Your task to perform on an android device: visit the assistant section in the google photos Image 0: 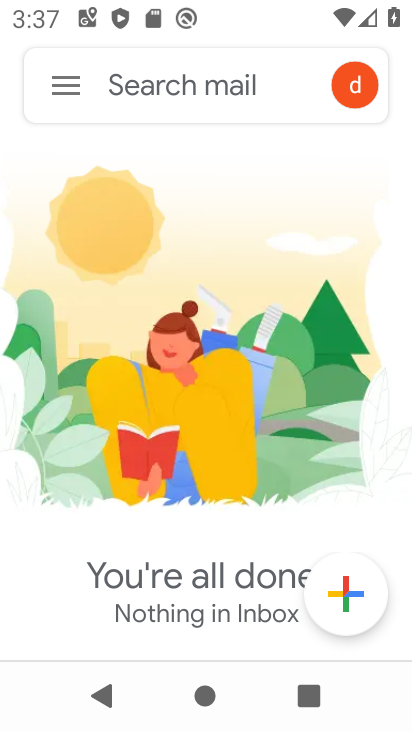
Step 0: press home button
Your task to perform on an android device: visit the assistant section in the google photos Image 1: 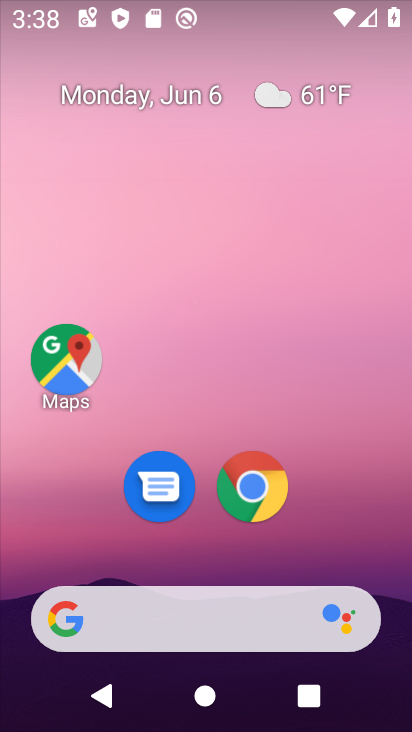
Step 1: drag from (330, 441) to (341, 89)
Your task to perform on an android device: visit the assistant section in the google photos Image 2: 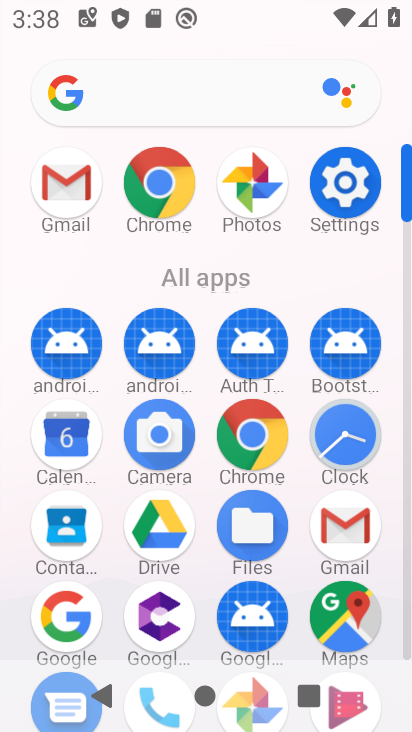
Step 2: click (266, 195)
Your task to perform on an android device: visit the assistant section in the google photos Image 3: 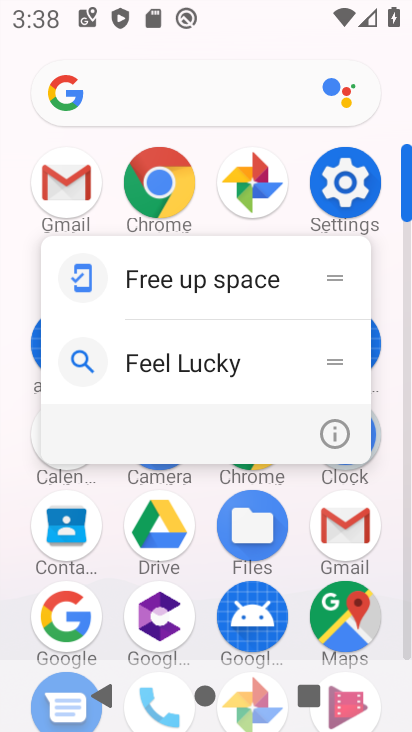
Step 3: click (266, 189)
Your task to perform on an android device: visit the assistant section in the google photos Image 4: 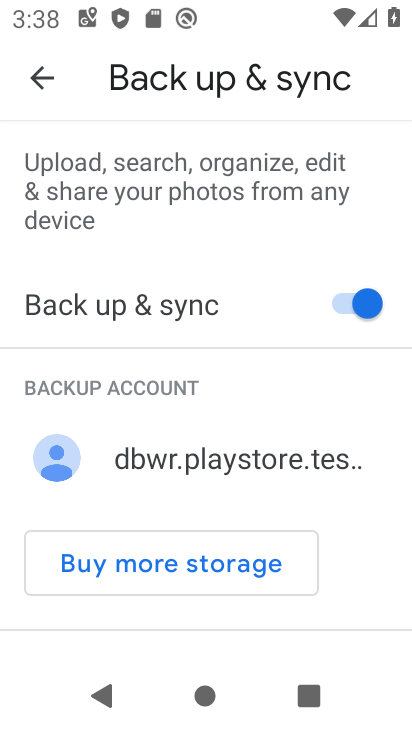
Step 4: click (40, 66)
Your task to perform on an android device: visit the assistant section in the google photos Image 5: 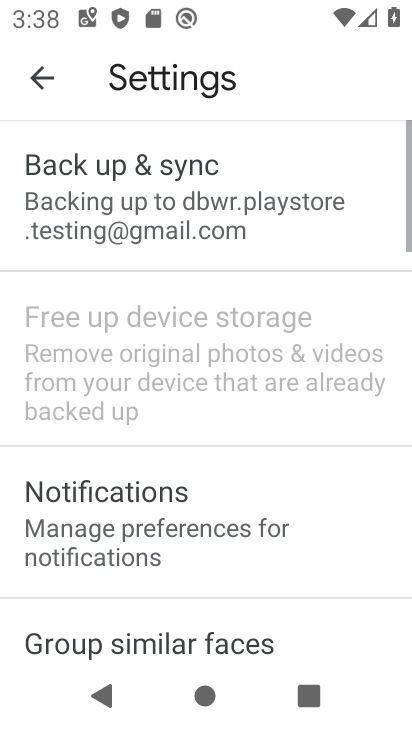
Step 5: click (41, 66)
Your task to perform on an android device: visit the assistant section in the google photos Image 6: 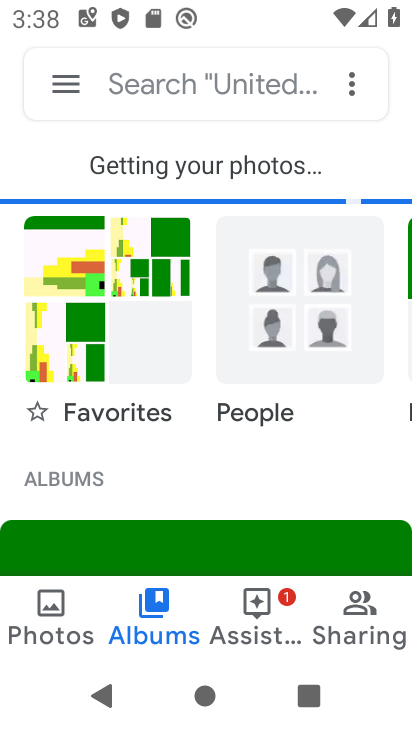
Step 6: click (51, 73)
Your task to perform on an android device: visit the assistant section in the google photos Image 7: 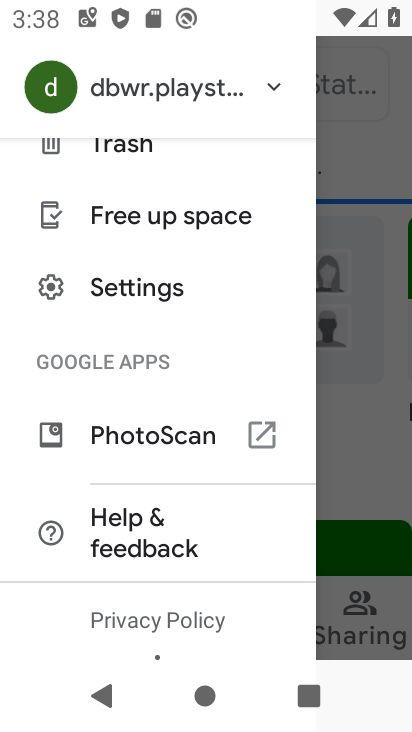
Step 7: click (387, 385)
Your task to perform on an android device: visit the assistant section in the google photos Image 8: 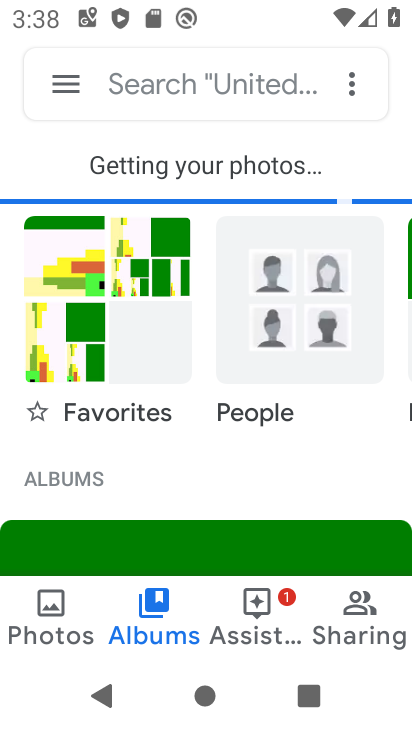
Step 8: click (228, 612)
Your task to perform on an android device: visit the assistant section in the google photos Image 9: 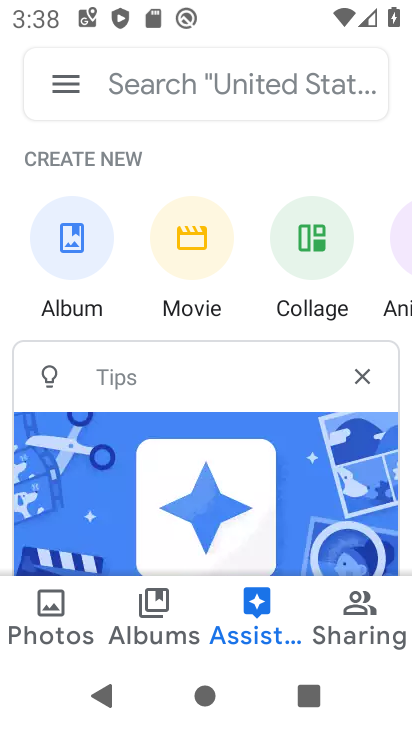
Step 9: task complete